Your task to perform on an android device: all mails in gmail Image 0: 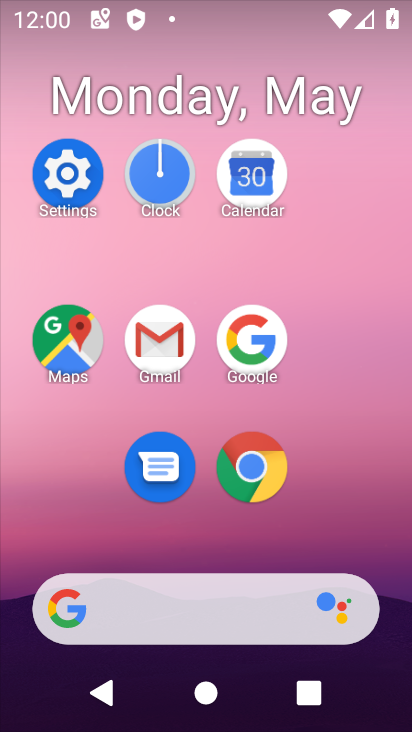
Step 0: click (151, 326)
Your task to perform on an android device: all mails in gmail Image 1: 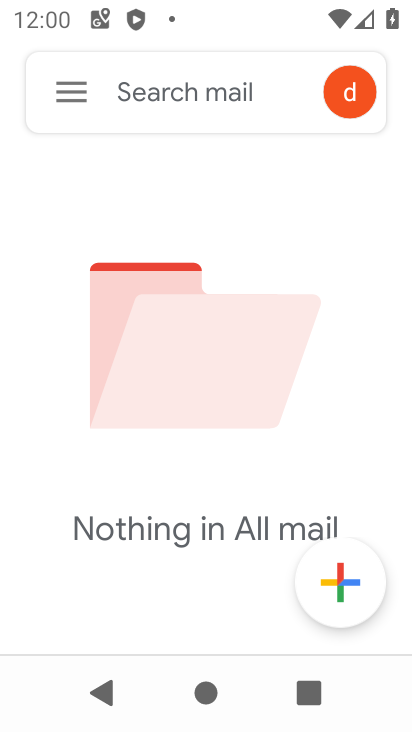
Step 1: click (57, 89)
Your task to perform on an android device: all mails in gmail Image 2: 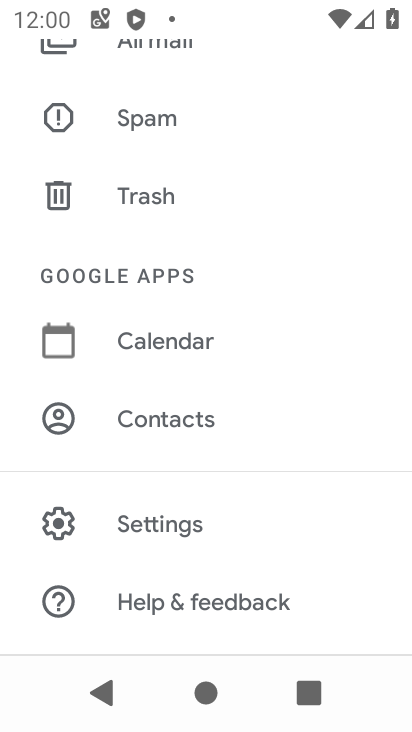
Step 2: drag from (287, 85) to (278, 600)
Your task to perform on an android device: all mails in gmail Image 3: 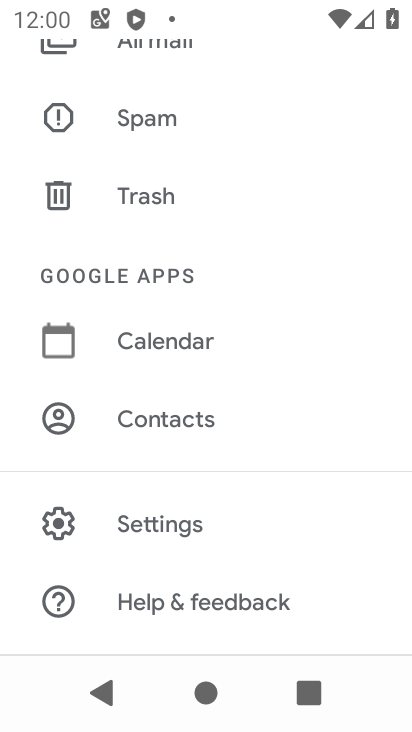
Step 3: click (180, 47)
Your task to perform on an android device: all mails in gmail Image 4: 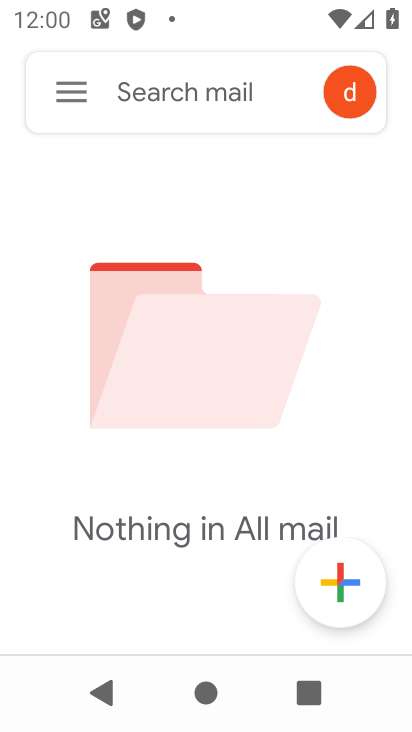
Step 4: task complete